Your task to perform on an android device: Is it going to rain tomorrow? Image 0: 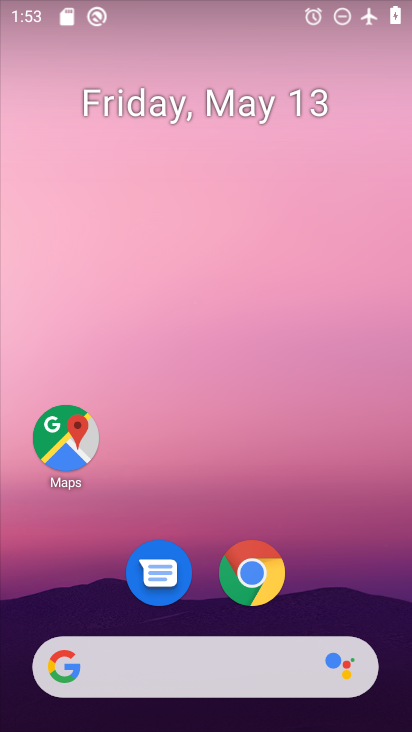
Step 0: click (137, 663)
Your task to perform on an android device: Is it going to rain tomorrow? Image 1: 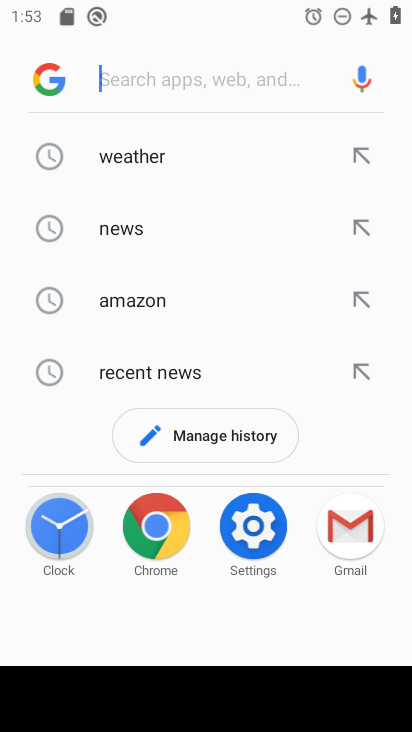
Step 1: type "Show me productivity apps on the Play Store"
Your task to perform on an android device: Is it going to rain tomorrow? Image 2: 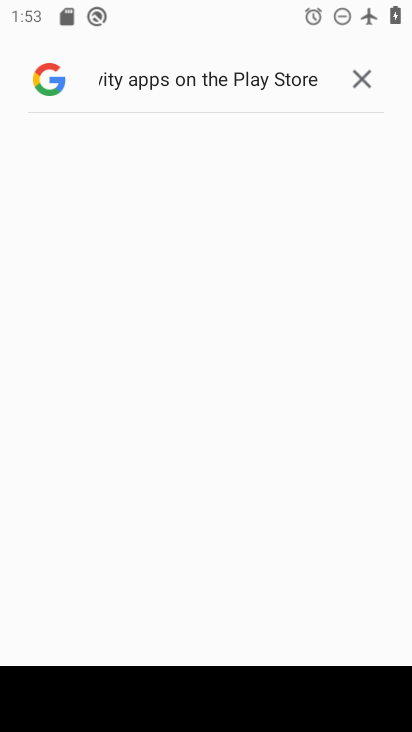
Step 2: click (363, 75)
Your task to perform on an android device: Is it going to rain tomorrow? Image 3: 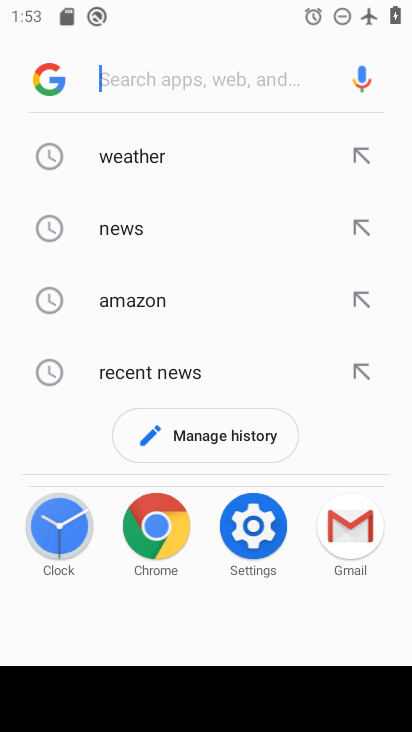
Step 3: type "Is it going to rain tomorrow?"
Your task to perform on an android device: Is it going to rain tomorrow? Image 4: 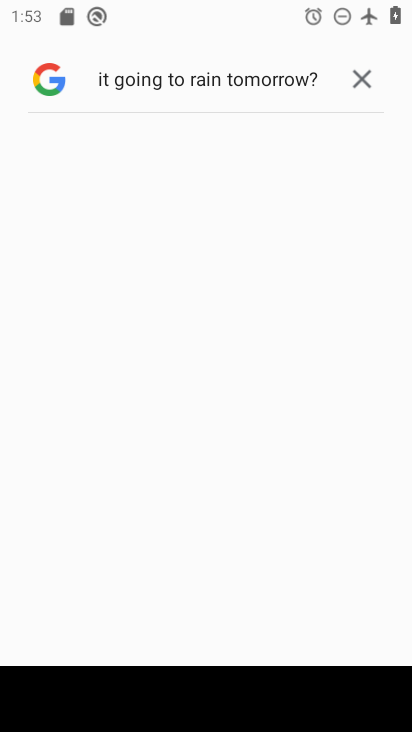
Step 4: task complete